Your task to perform on an android device: Search for Mexican restaurants on Maps Image 0: 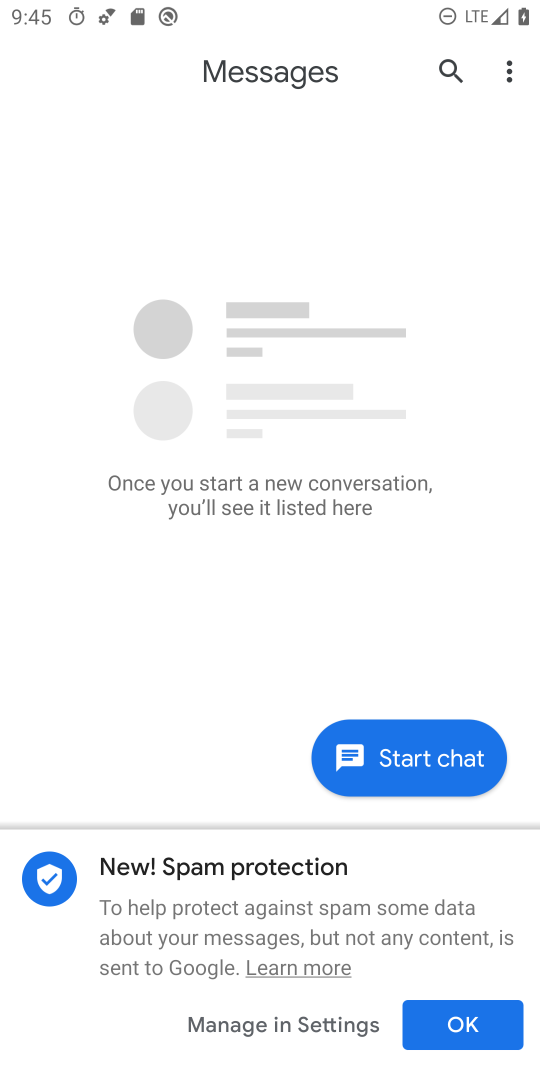
Step 0: press home button
Your task to perform on an android device: Search for Mexican restaurants on Maps Image 1: 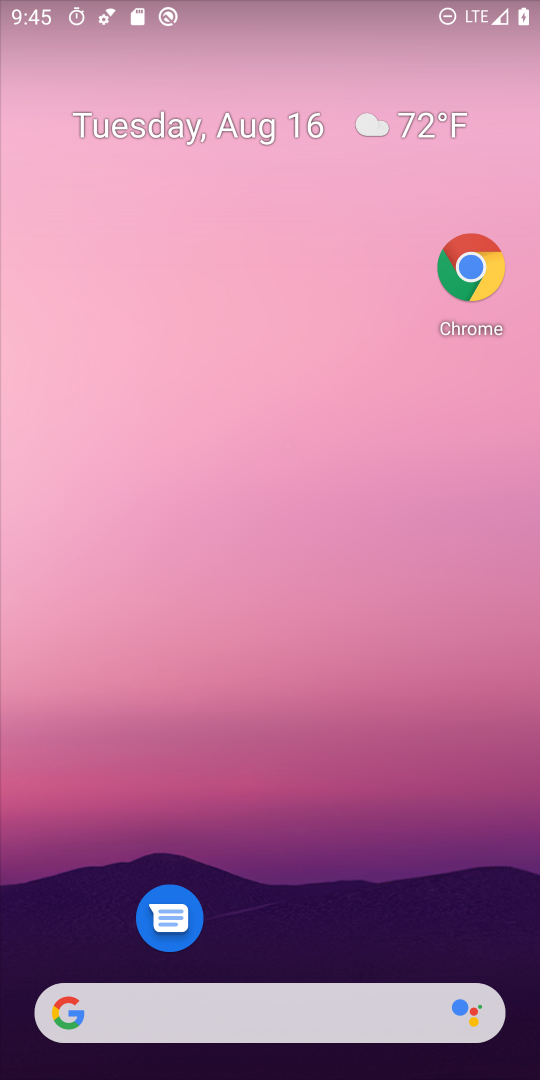
Step 1: drag from (224, 1028) to (194, 401)
Your task to perform on an android device: Search for Mexican restaurants on Maps Image 2: 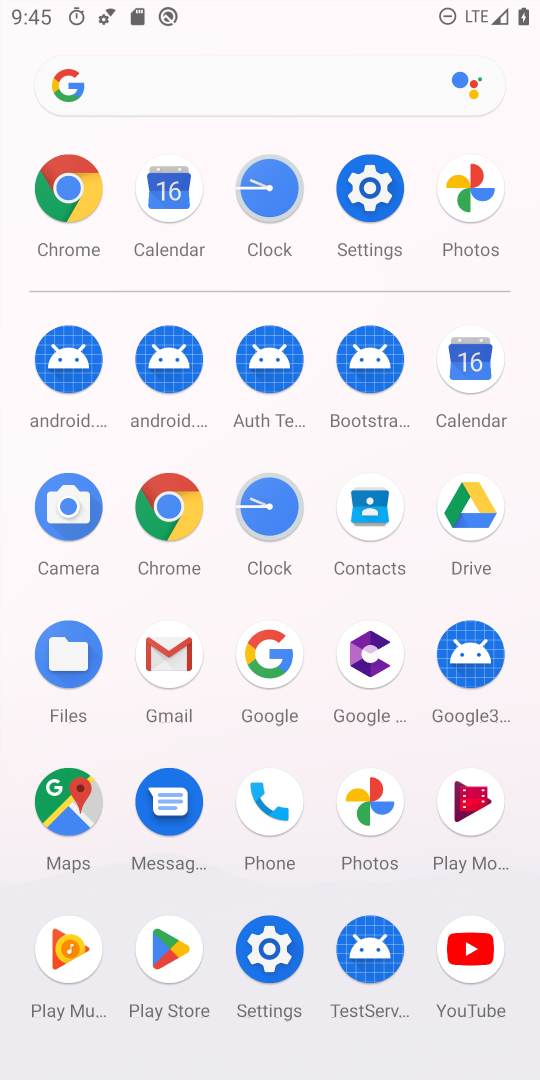
Step 2: click (79, 827)
Your task to perform on an android device: Search for Mexican restaurants on Maps Image 3: 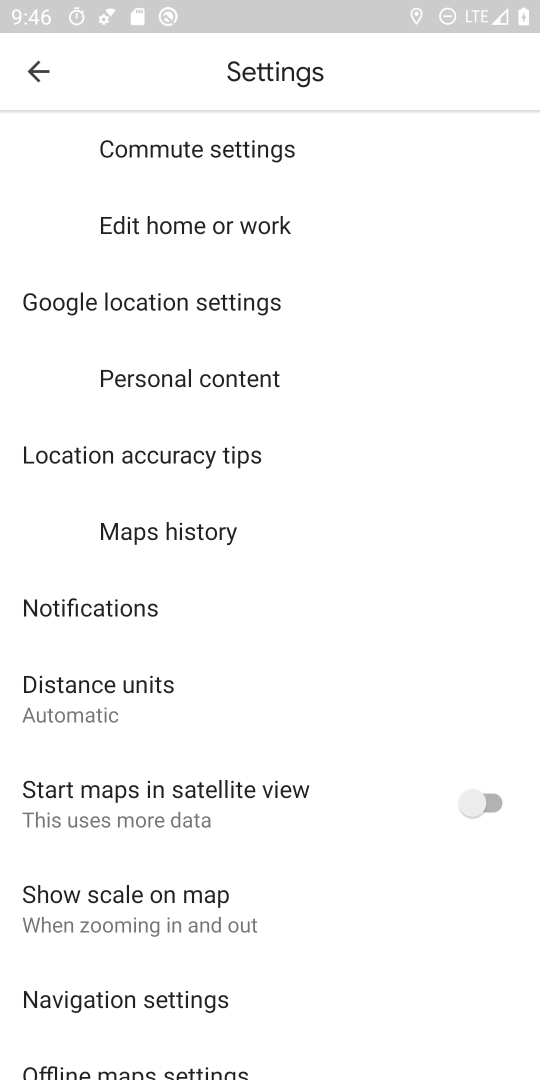
Step 3: click (43, 93)
Your task to perform on an android device: Search for Mexican restaurants on Maps Image 4: 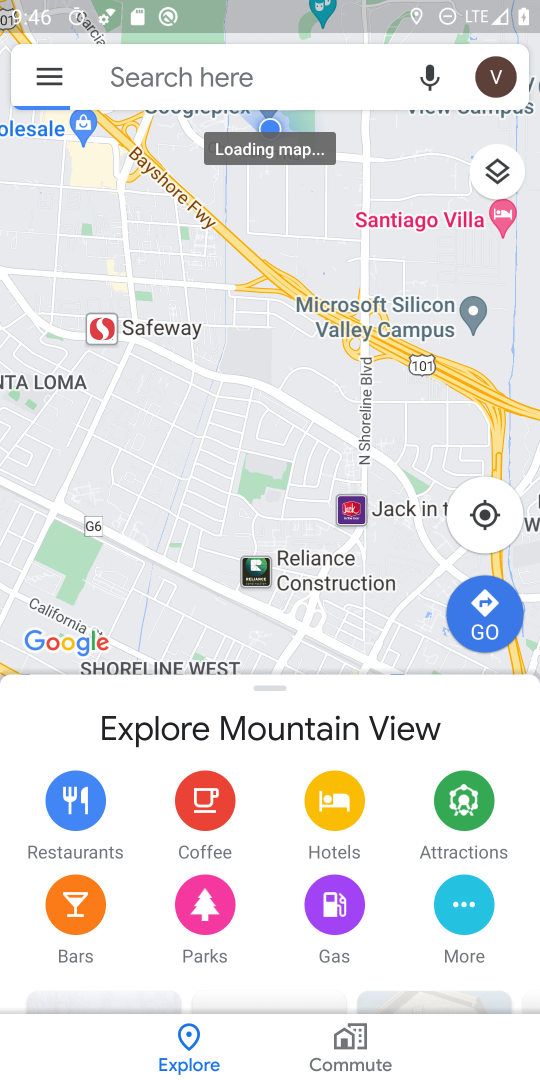
Step 4: click (195, 94)
Your task to perform on an android device: Search for Mexican restaurants on Maps Image 5: 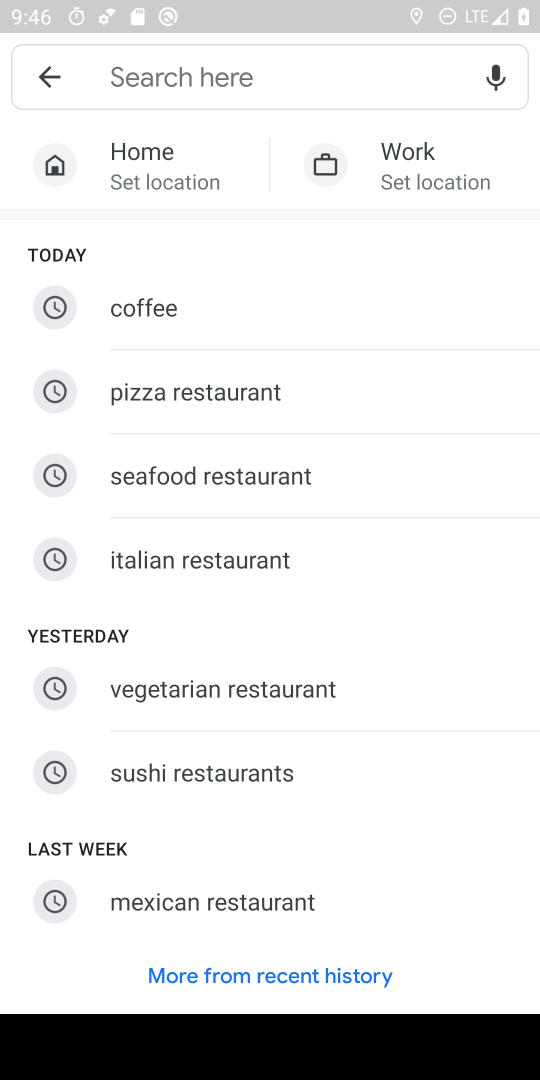
Step 5: click (244, 914)
Your task to perform on an android device: Search for Mexican restaurants on Maps Image 6: 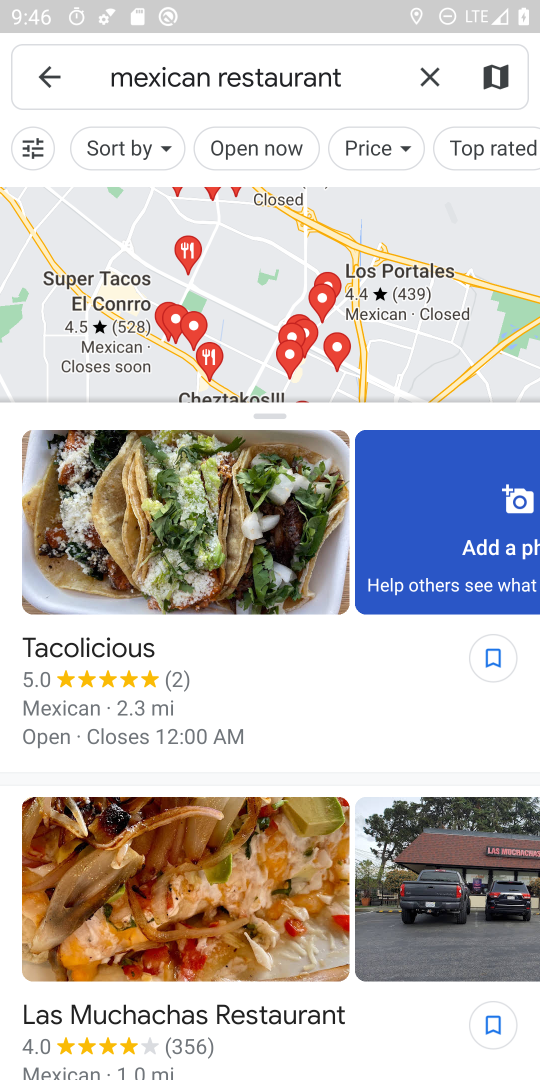
Step 6: task complete